Your task to perform on an android device: Search for seafood restaurants on Google Maps Image 0: 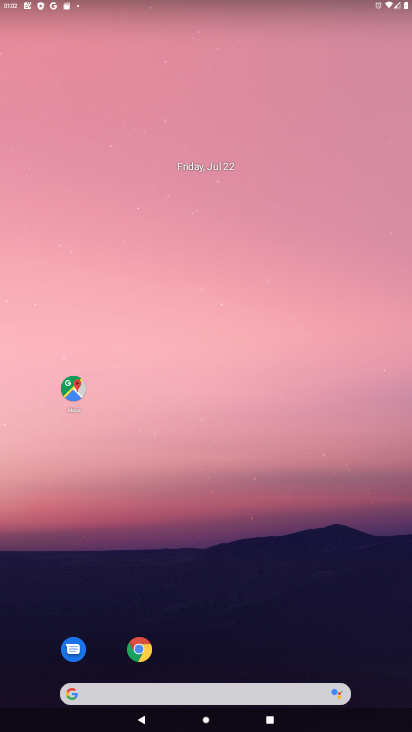
Step 0: press home button
Your task to perform on an android device: Search for seafood restaurants on Google Maps Image 1: 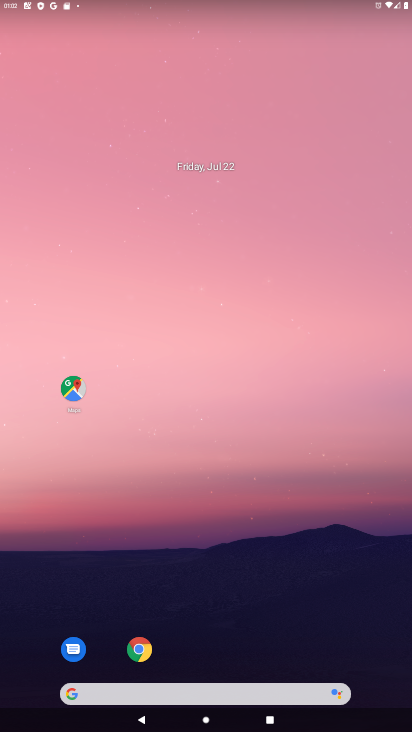
Step 1: drag from (234, 629) to (186, 103)
Your task to perform on an android device: Search for seafood restaurants on Google Maps Image 2: 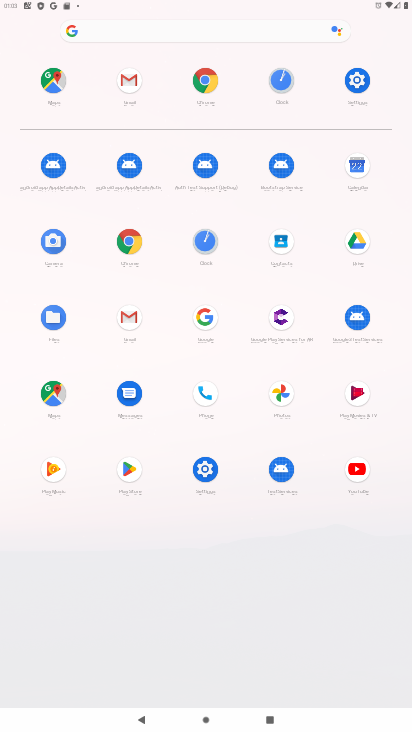
Step 2: click (51, 390)
Your task to perform on an android device: Search for seafood restaurants on Google Maps Image 3: 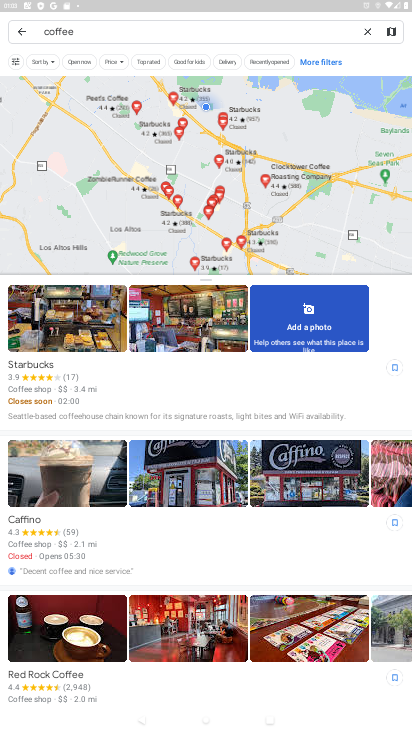
Step 3: click (366, 30)
Your task to perform on an android device: Search for seafood restaurants on Google Maps Image 4: 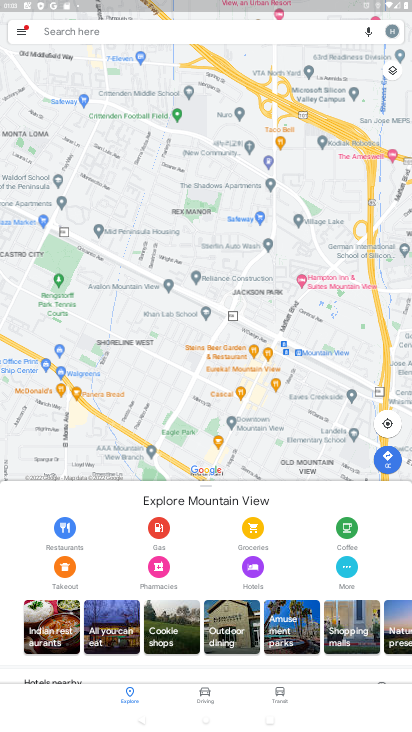
Step 4: click (229, 34)
Your task to perform on an android device: Search for seafood restaurants on Google Maps Image 5: 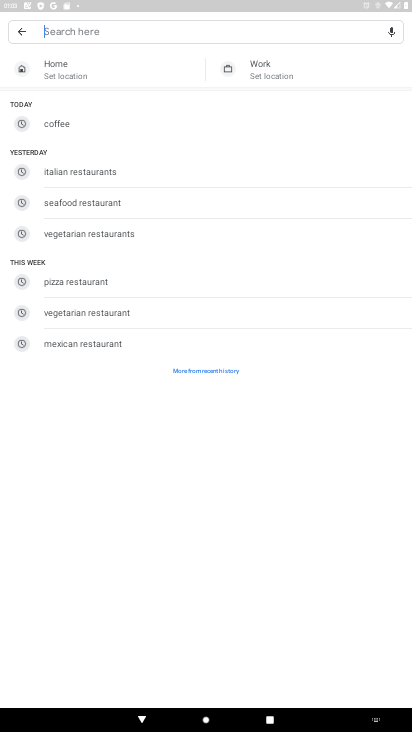
Step 5: type "seafood restaurants"
Your task to perform on an android device: Search for seafood restaurants on Google Maps Image 6: 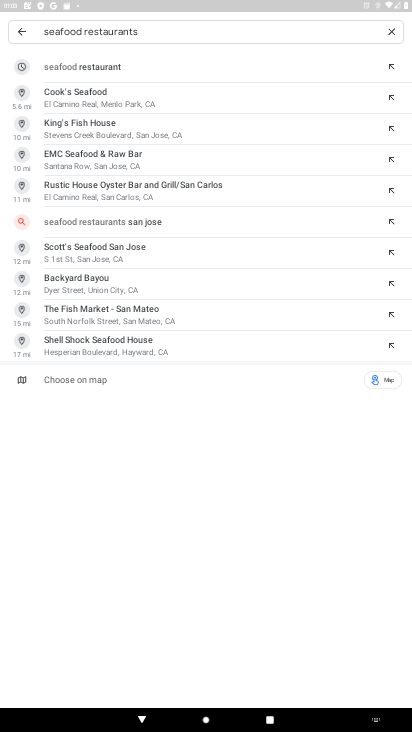
Step 6: press enter
Your task to perform on an android device: Search for seafood restaurants on Google Maps Image 7: 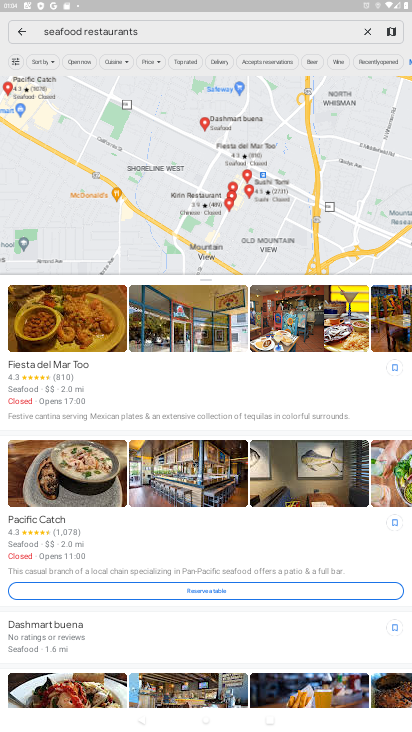
Step 7: task complete